Your task to perform on an android device: delete the emails in spam in the gmail app Image 0: 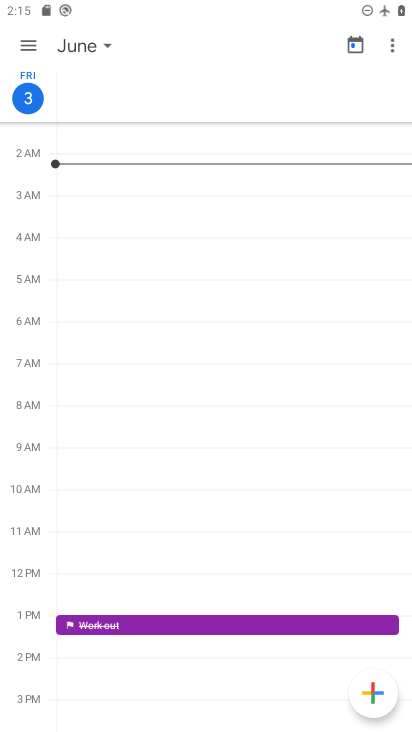
Step 0: press home button
Your task to perform on an android device: delete the emails in spam in the gmail app Image 1: 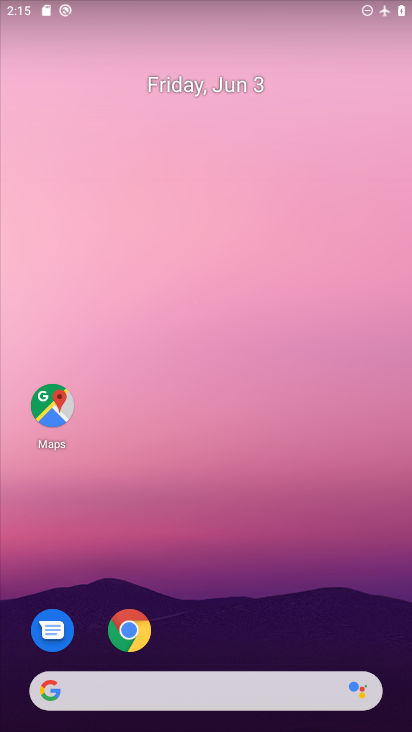
Step 1: drag from (206, 724) to (206, 202)
Your task to perform on an android device: delete the emails in spam in the gmail app Image 2: 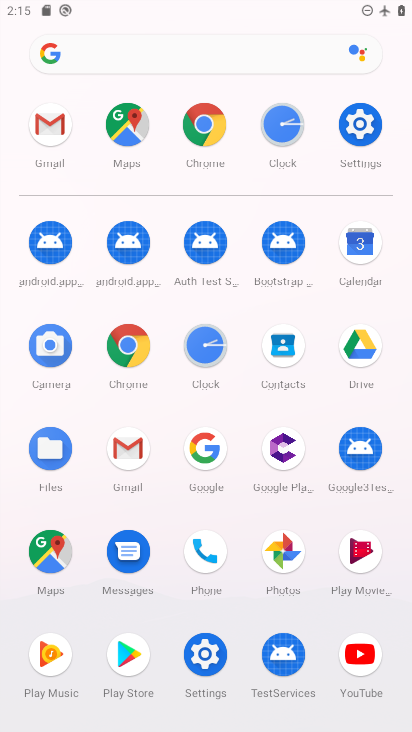
Step 2: click (122, 446)
Your task to perform on an android device: delete the emails in spam in the gmail app Image 3: 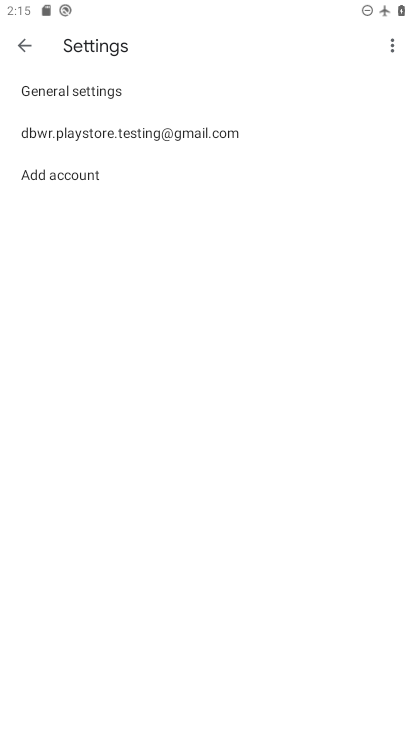
Step 3: click (24, 37)
Your task to perform on an android device: delete the emails in spam in the gmail app Image 4: 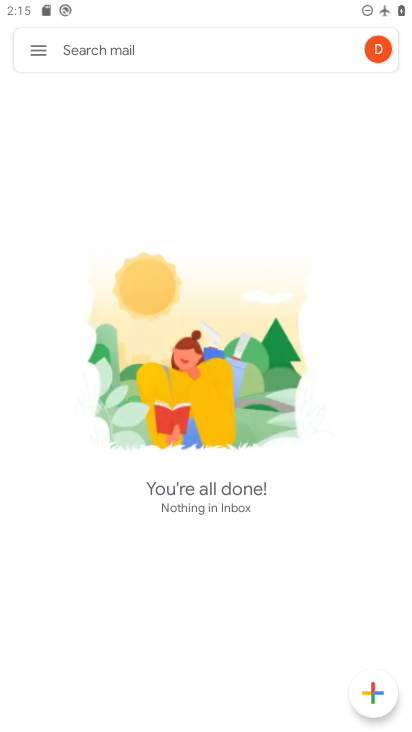
Step 4: click (37, 48)
Your task to perform on an android device: delete the emails in spam in the gmail app Image 5: 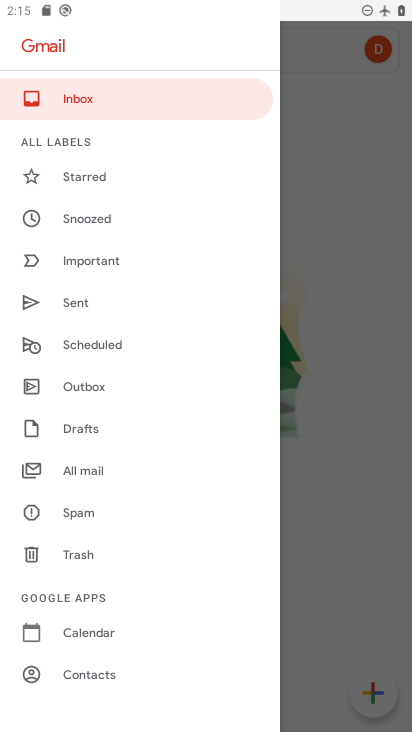
Step 5: click (79, 512)
Your task to perform on an android device: delete the emails in spam in the gmail app Image 6: 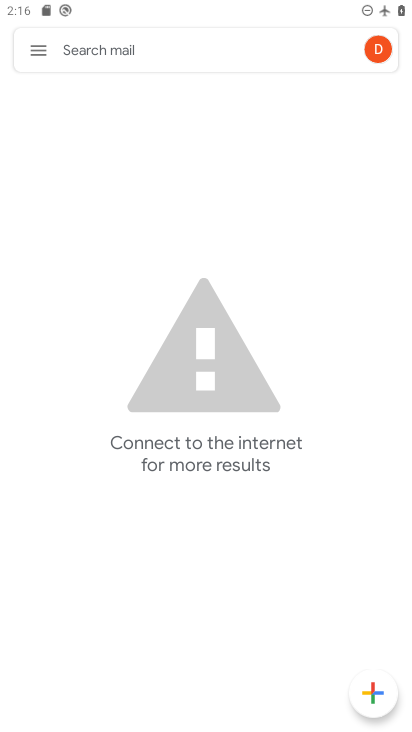
Step 6: task complete